Your task to perform on an android device: turn on sleep mode Image 0: 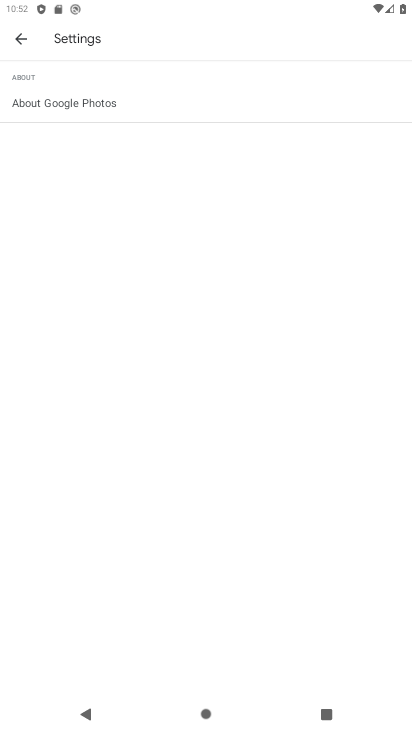
Step 0: drag from (200, 439) to (229, 117)
Your task to perform on an android device: turn on sleep mode Image 1: 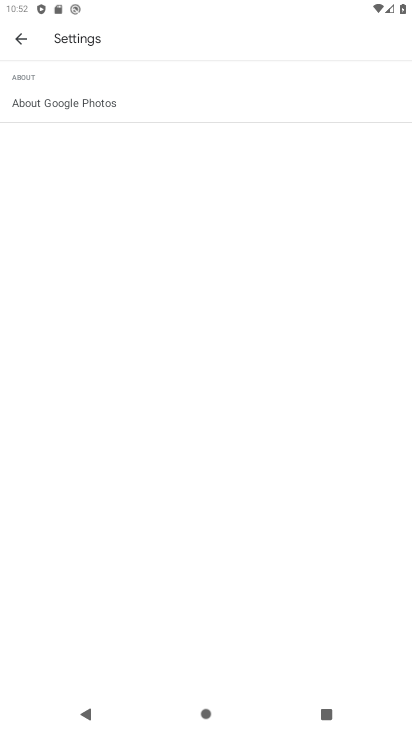
Step 1: press home button
Your task to perform on an android device: turn on sleep mode Image 2: 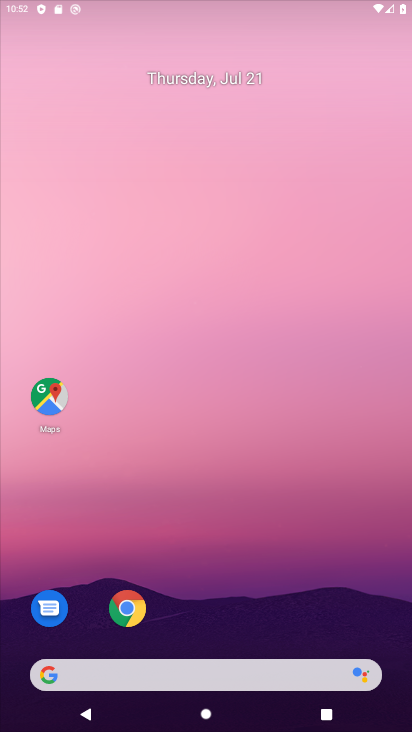
Step 2: drag from (204, 593) to (272, 127)
Your task to perform on an android device: turn on sleep mode Image 3: 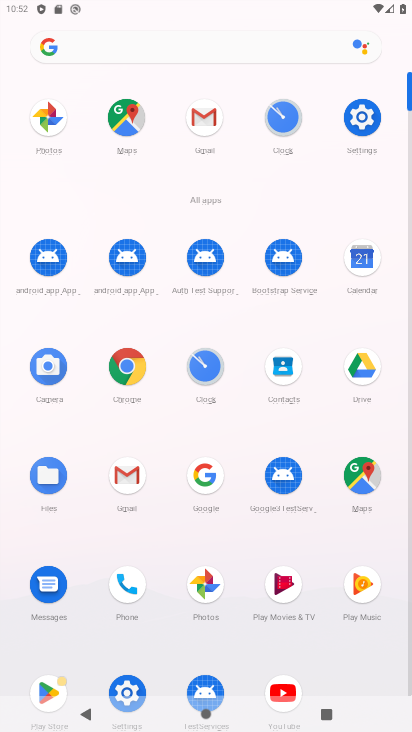
Step 3: click (370, 115)
Your task to perform on an android device: turn on sleep mode Image 4: 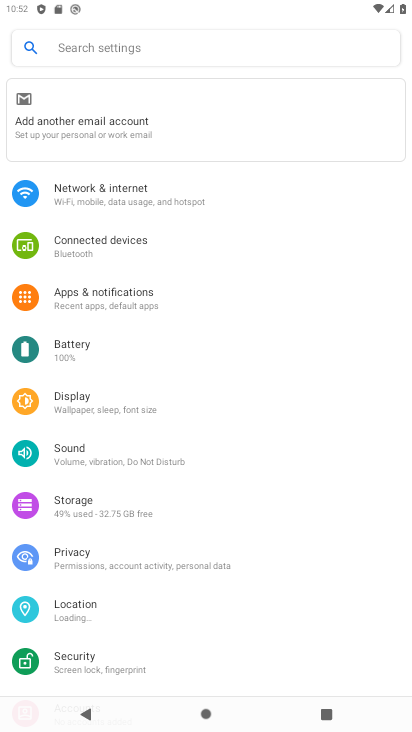
Step 4: drag from (152, 540) to (199, 145)
Your task to perform on an android device: turn on sleep mode Image 5: 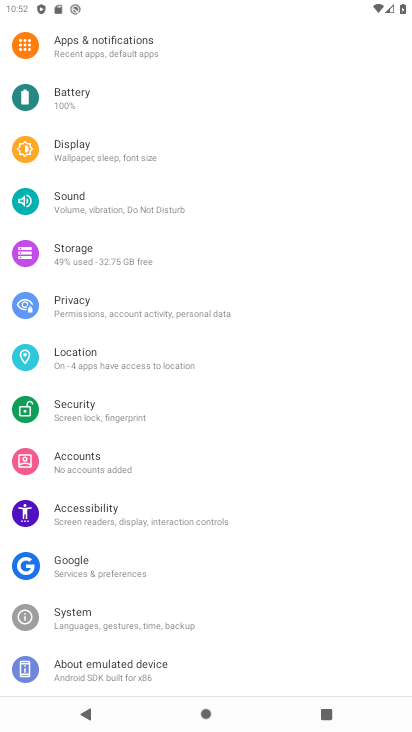
Step 5: drag from (4, 460) to (110, 207)
Your task to perform on an android device: turn on sleep mode Image 6: 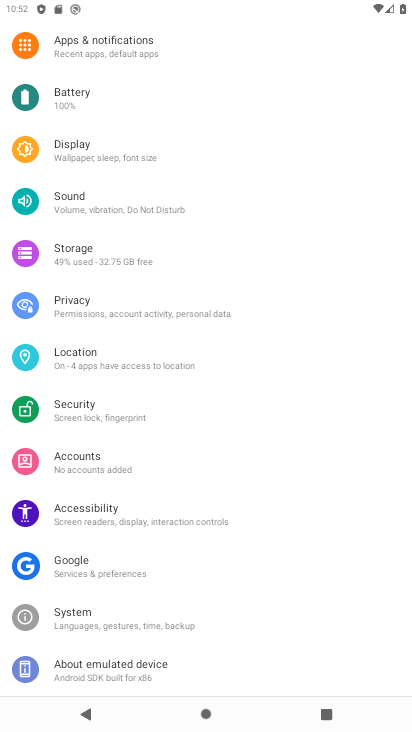
Step 6: click (81, 148)
Your task to perform on an android device: turn on sleep mode Image 7: 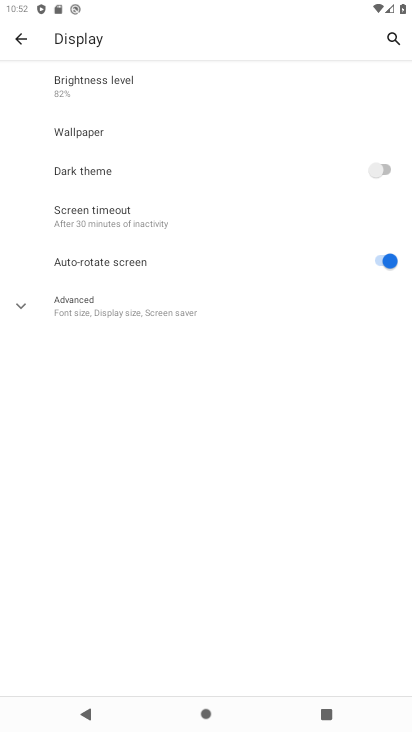
Step 7: click (116, 214)
Your task to perform on an android device: turn on sleep mode Image 8: 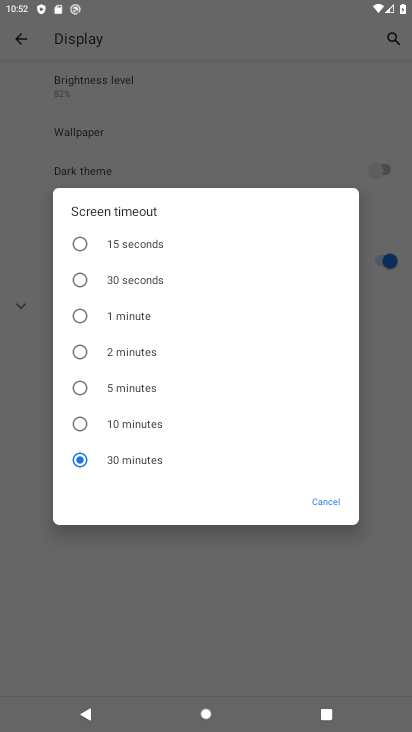
Step 8: task complete